Your task to perform on an android device: move an email to a new category in the gmail app Image 0: 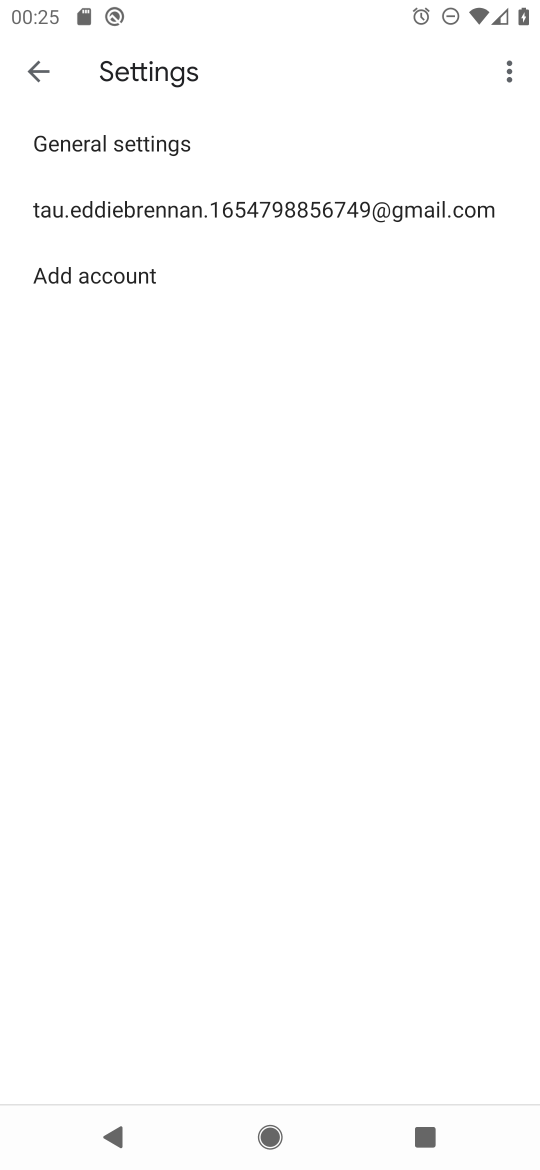
Step 0: press home button
Your task to perform on an android device: move an email to a new category in the gmail app Image 1: 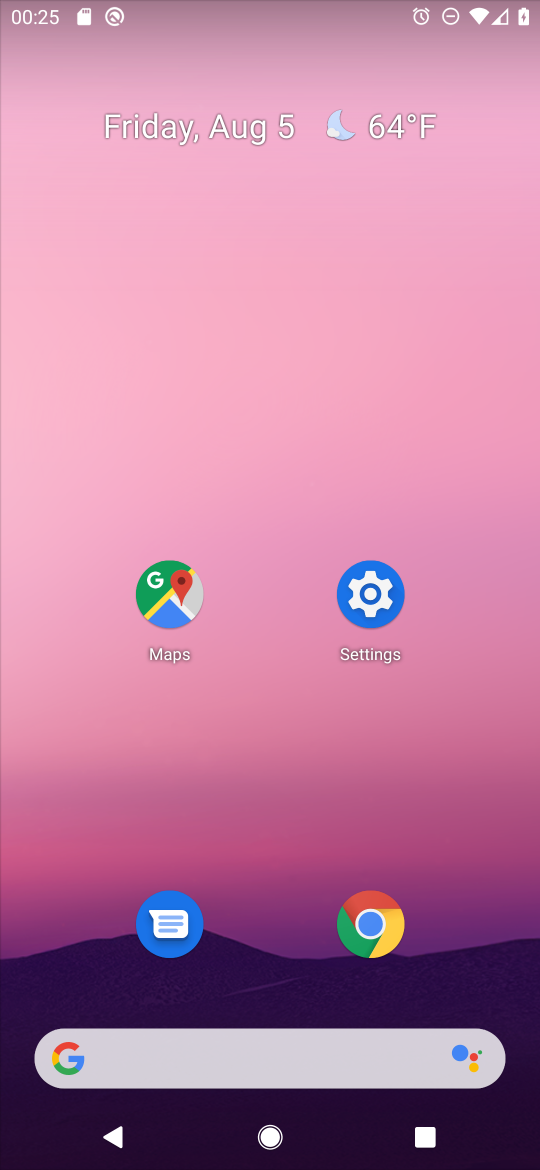
Step 1: drag from (301, 1045) to (397, 186)
Your task to perform on an android device: move an email to a new category in the gmail app Image 2: 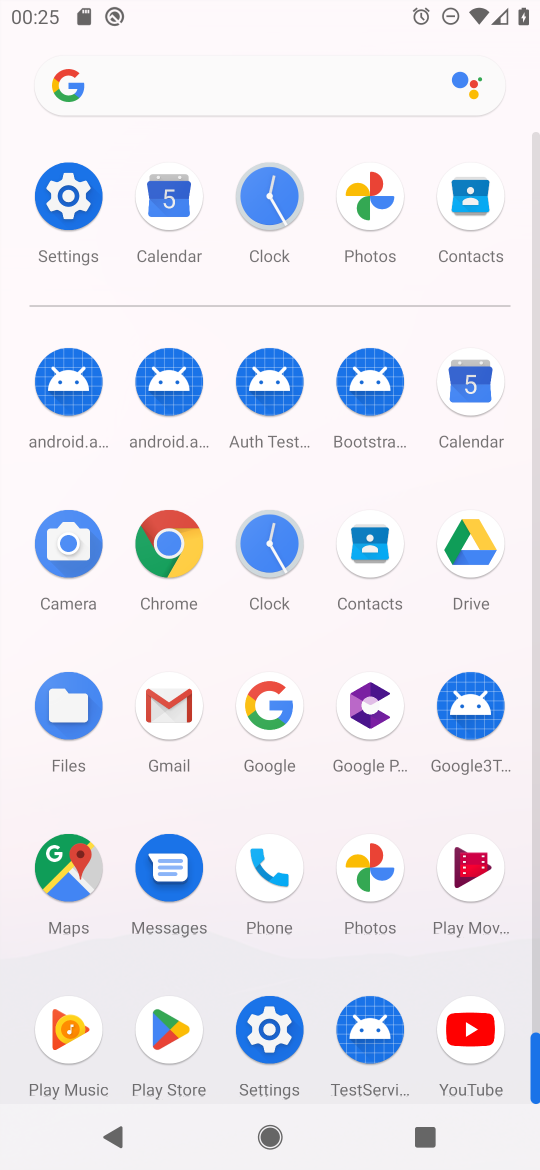
Step 2: click (175, 703)
Your task to perform on an android device: move an email to a new category in the gmail app Image 3: 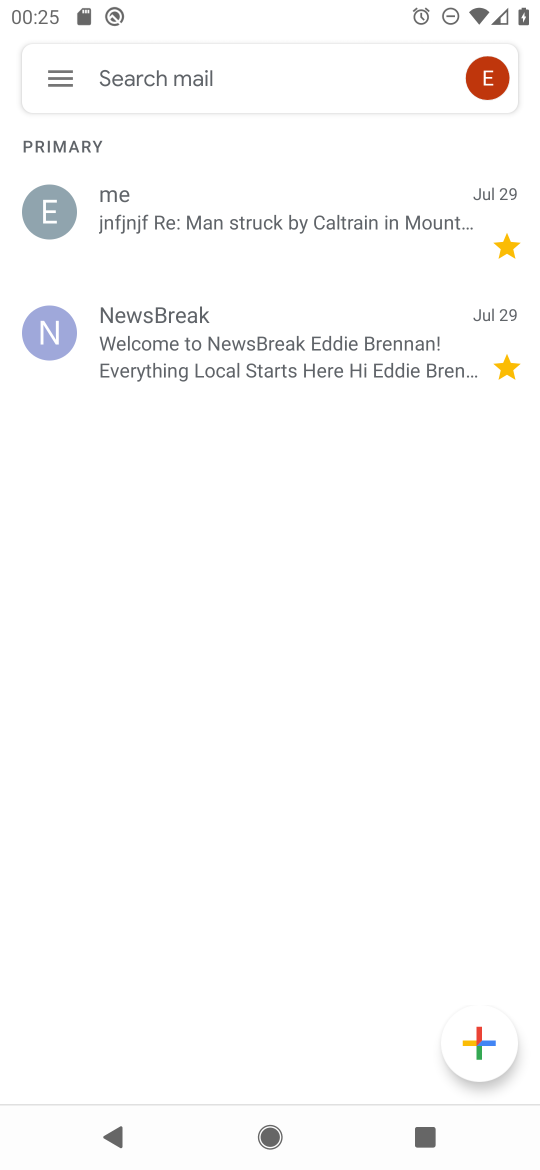
Step 3: click (58, 217)
Your task to perform on an android device: move an email to a new category in the gmail app Image 4: 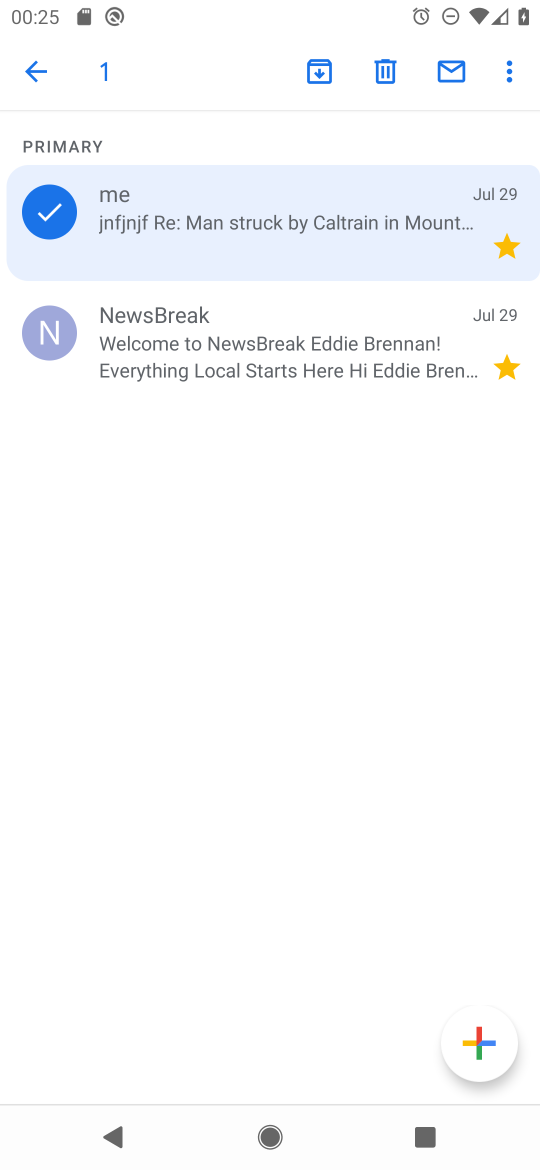
Step 4: click (515, 68)
Your task to perform on an android device: move an email to a new category in the gmail app Image 5: 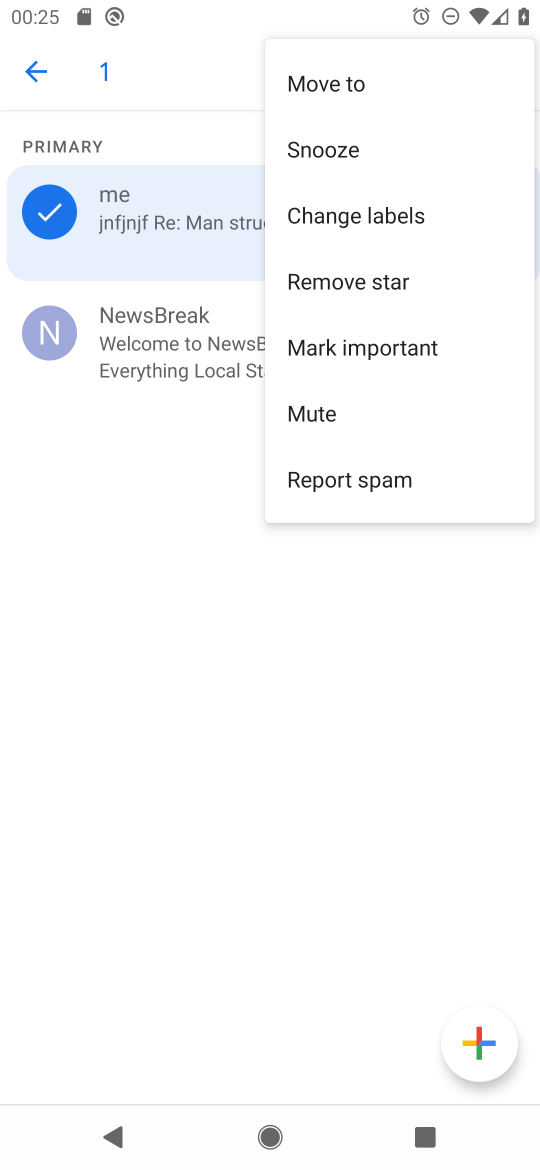
Step 5: click (364, 79)
Your task to perform on an android device: move an email to a new category in the gmail app Image 6: 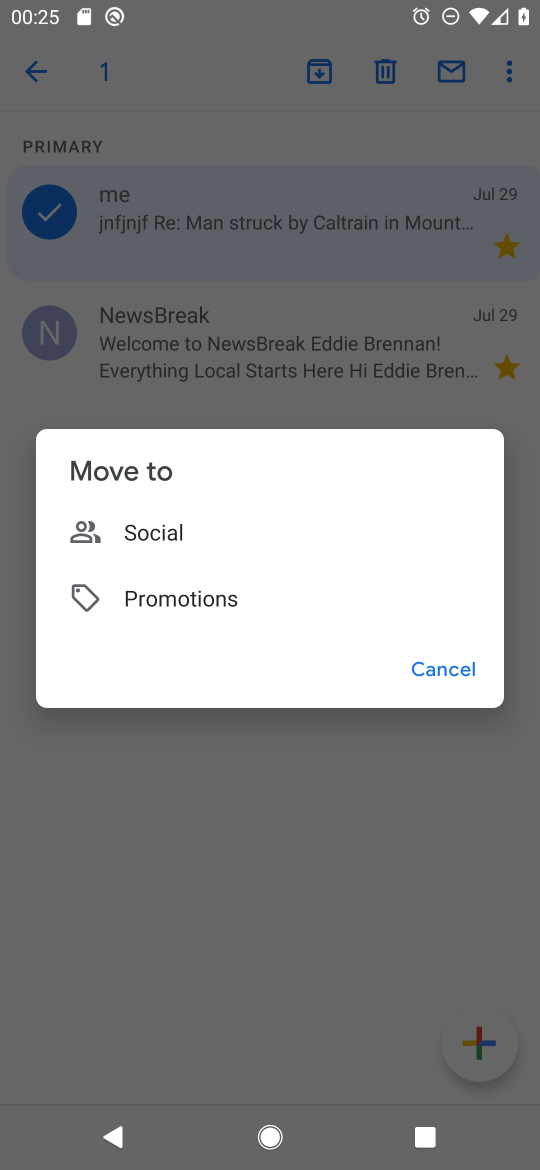
Step 6: click (165, 525)
Your task to perform on an android device: move an email to a new category in the gmail app Image 7: 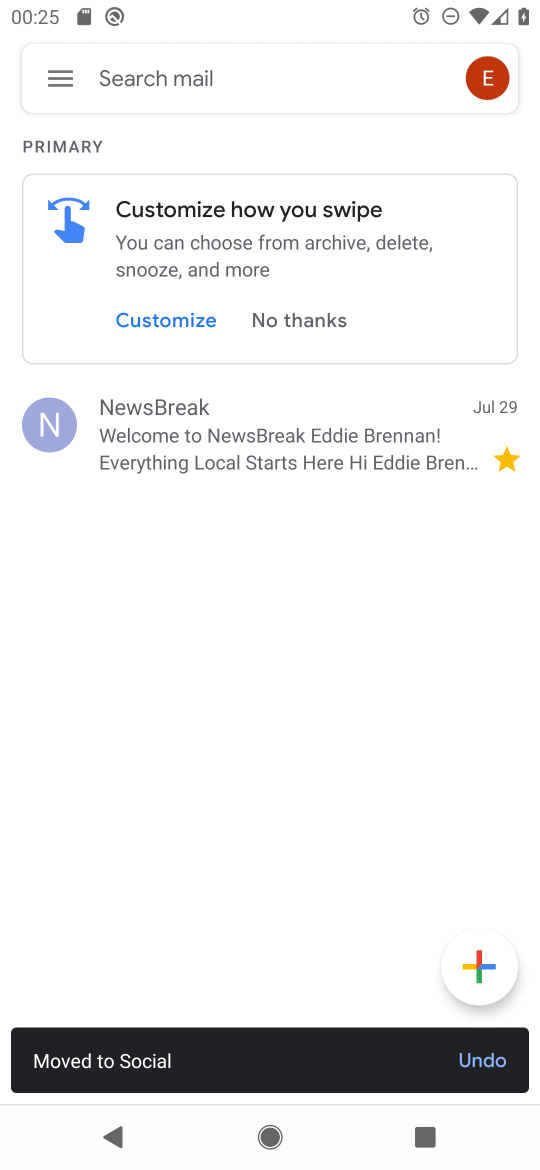
Step 7: task complete